Your task to perform on an android device: change keyboard looks Image 0: 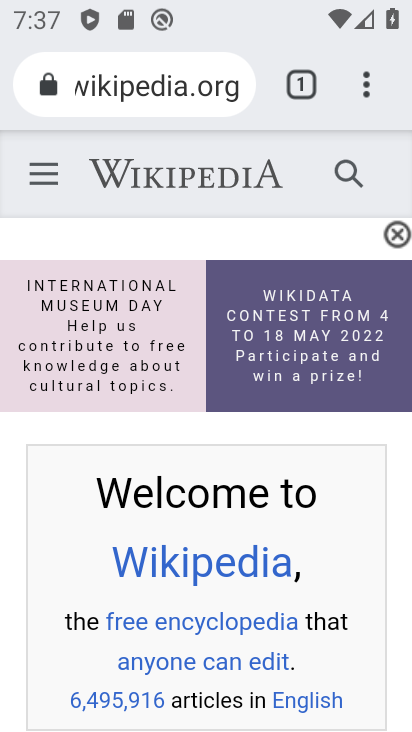
Step 0: press home button
Your task to perform on an android device: change keyboard looks Image 1: 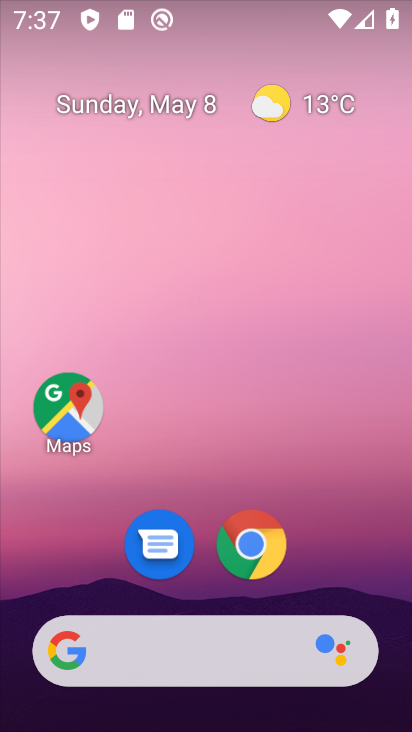
Step 1: drag from (340, 565) to (259, 145)
Your task to perform on an android device: change keyboard looks Image 2: 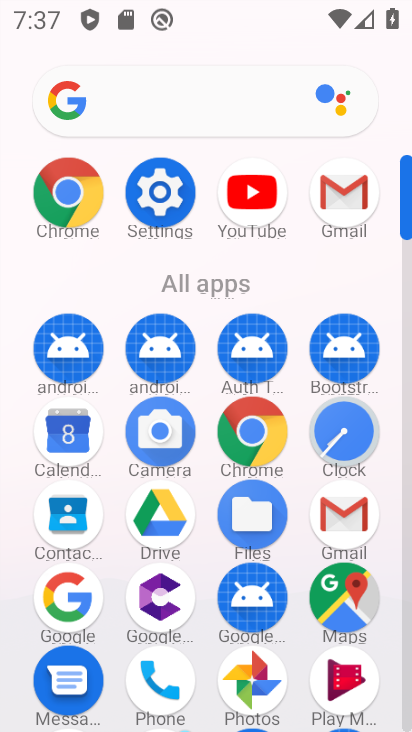
Step 2: click (161, 193)
Your task to perform on an android device: change keyboard looks Image 3: 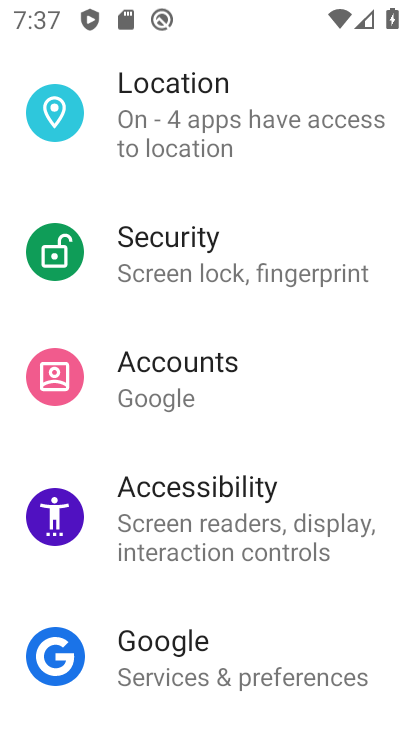
Step 3: drag from (268, 590) to (257, 151)
Your task to perform on an android device: change keyboard looks Image 4: 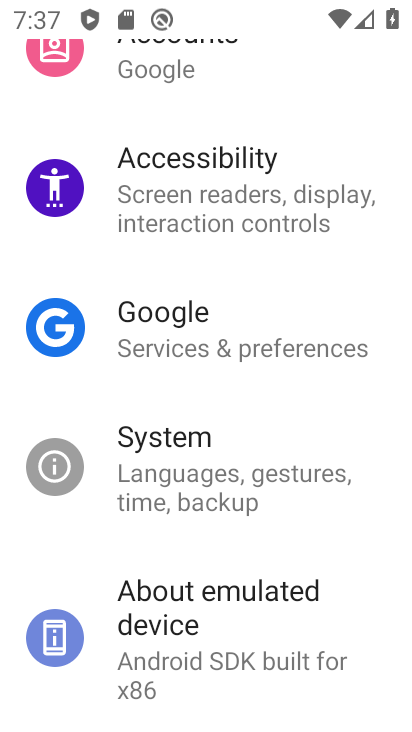
Step 4: click (170, 455)
Your task to perform on an android device: change keyboard looks Image 5: 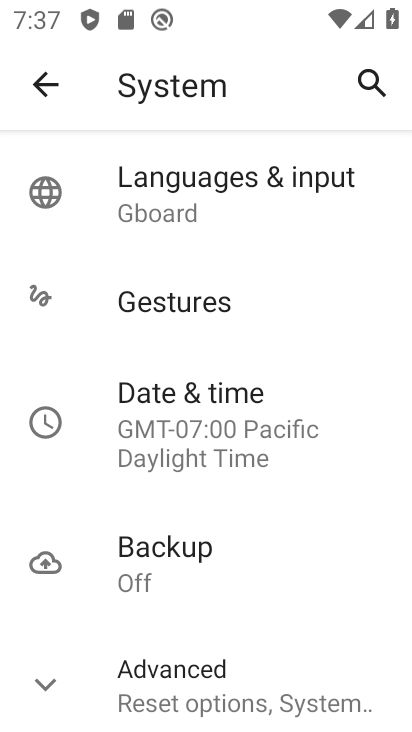
Step 5: click (167, 176)
Your task to perform on an android device: change keyboard looks Image 6: 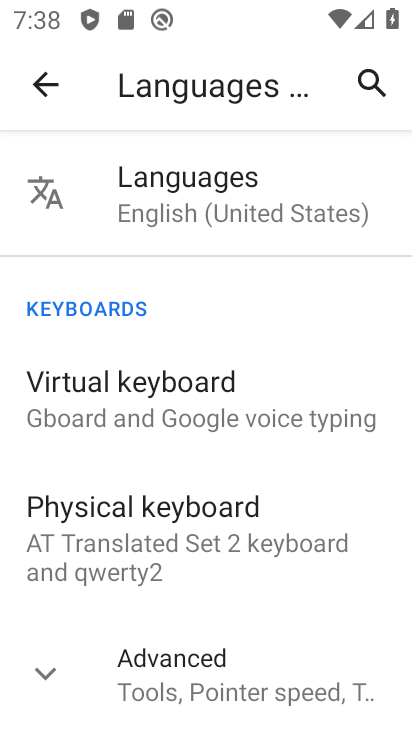
Step 6: click (88, 400)
Your task to perform on an android device: change keyboard looks Image 7: 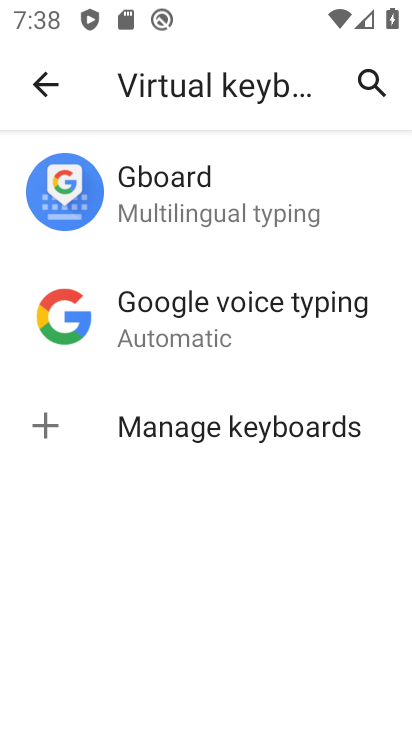
Step 7: click (137, 177)
Your task to perform on an android device: change keyboard looks Image 8: 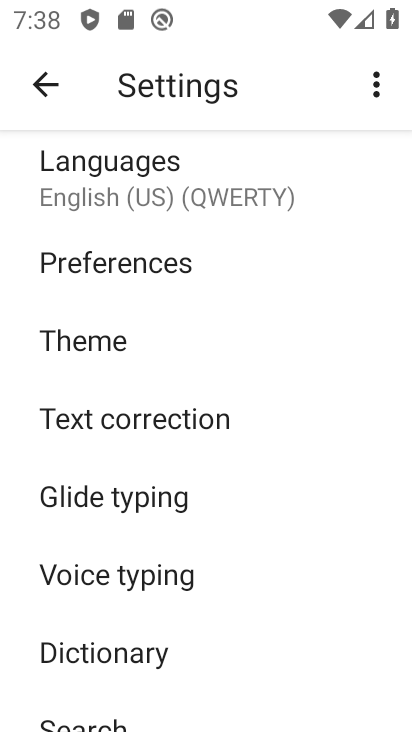
Step 8: click (81, 337)
Your task to perform on an android device: change keyboard looks Image 9: 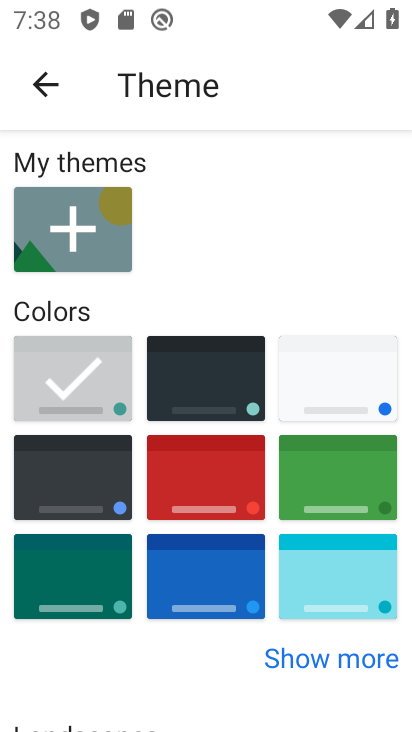
Step 9: click (313, 488)
Your task to perform on an android device: change keyboard looks Image 10: 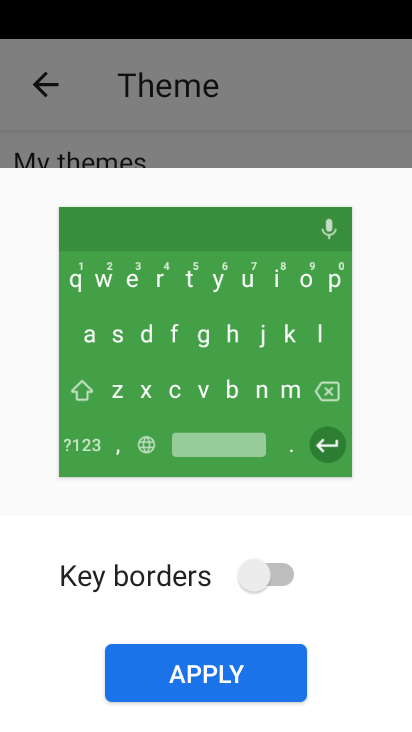
Step 10: click (204, 666)
Your task to perform on an android device: change keyboard looks Image 11: 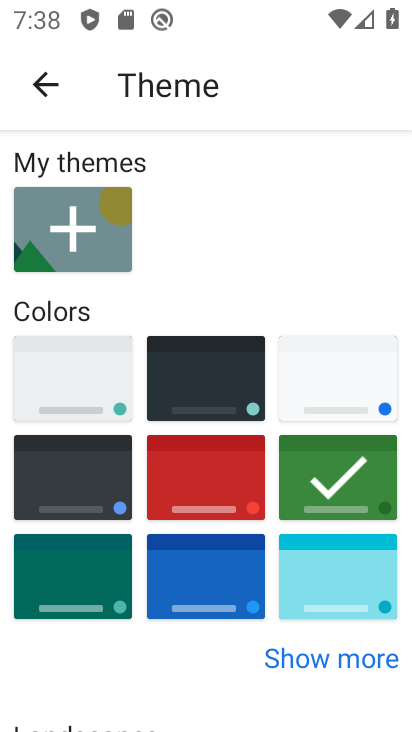
Step 11: task complete